Your task to perform on an android device: Check the news Image 0: 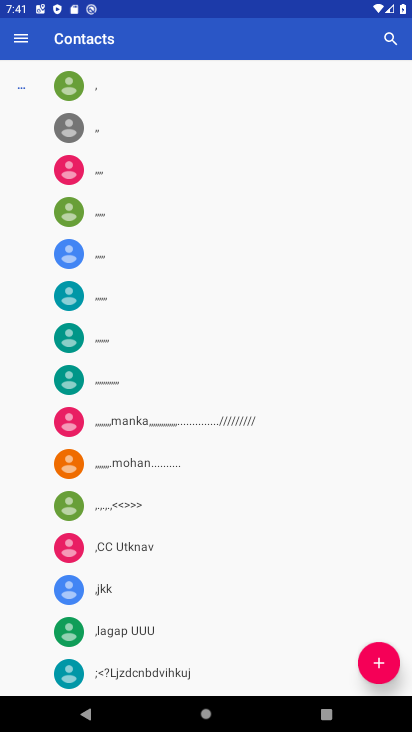
Step 0: press home button
Your task to perform on an android device: Check the news Image 1: 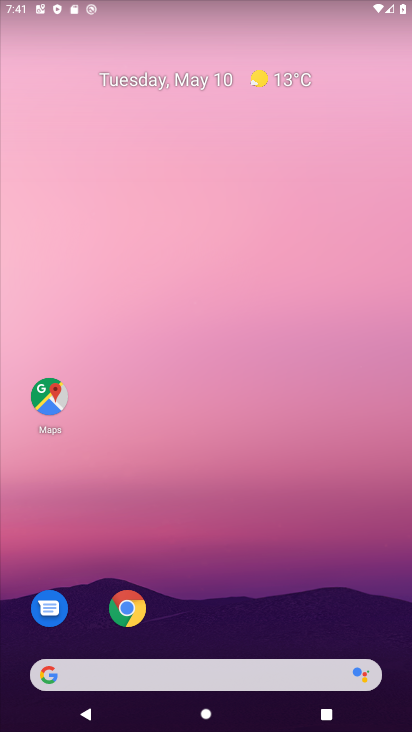
Step 1: drag from (247, 559) to (201, 111)
Your task to perform on an android device: Check the news Image 2: 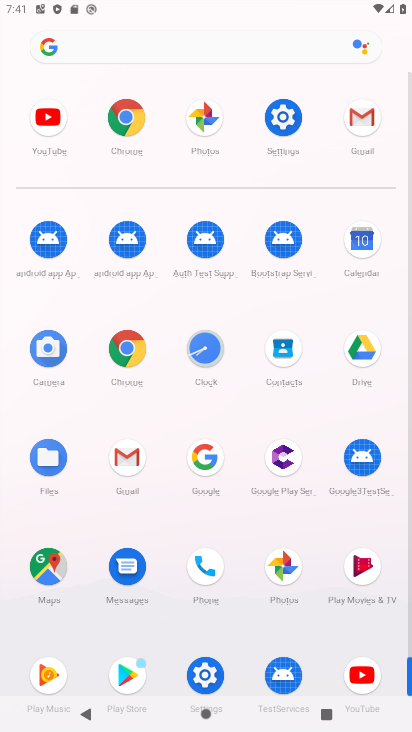
Step 2: click (207, 486)
Your task to perform on an android device: Check the news Image 3: 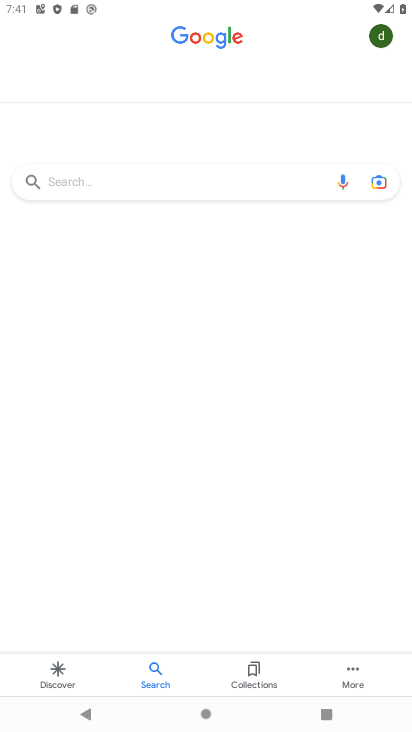
Step 3: click (149, 187)
Your task to perform on an android device: Check the news Image 4: 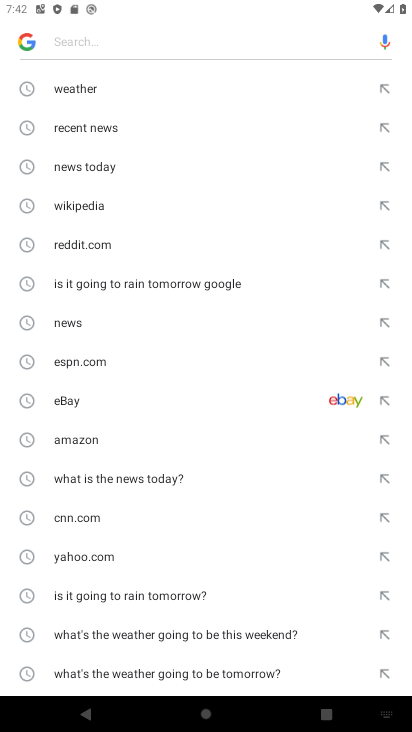
Step 4: click (73, 326)
Your task to perform on an android device: Check the news Image 5: 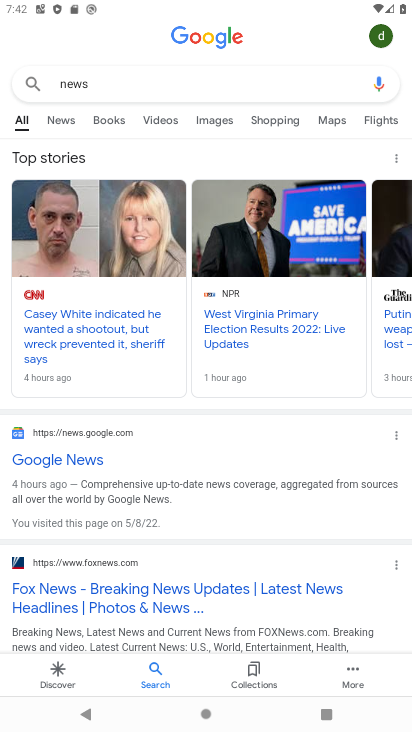
Step 5: task complete